Your task to perform on an android device: Open calendar and show me the third week of next month Image 0: 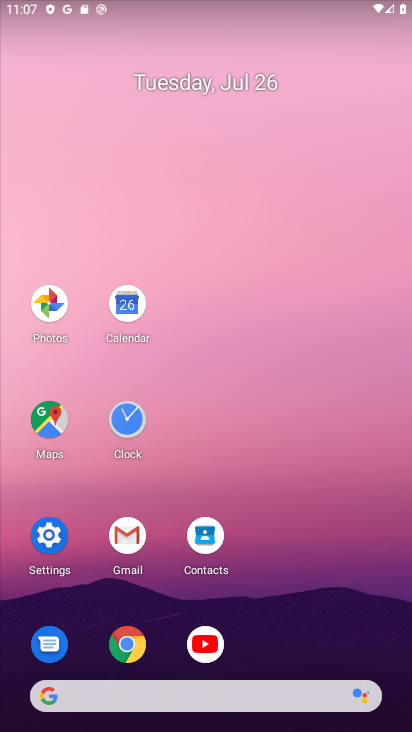
Step 0: click (128, 304)
Your task to perform on an android device: Open calendar and show me the third week of next month Image 1: 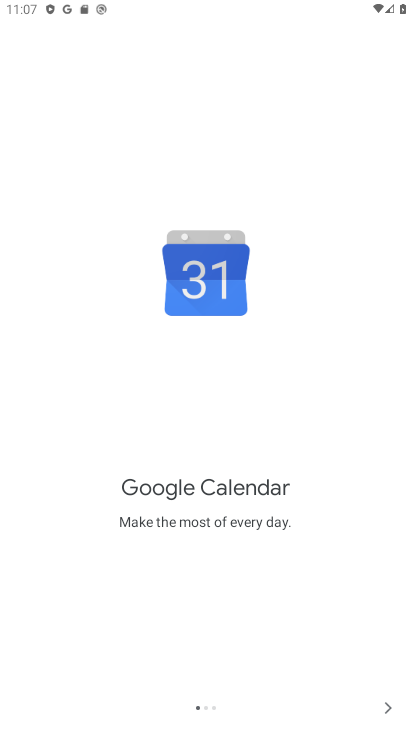
Step 1: click (387, 704)
Your task to perform on an android device: Open calendar and show me the third week of next month Image 2: 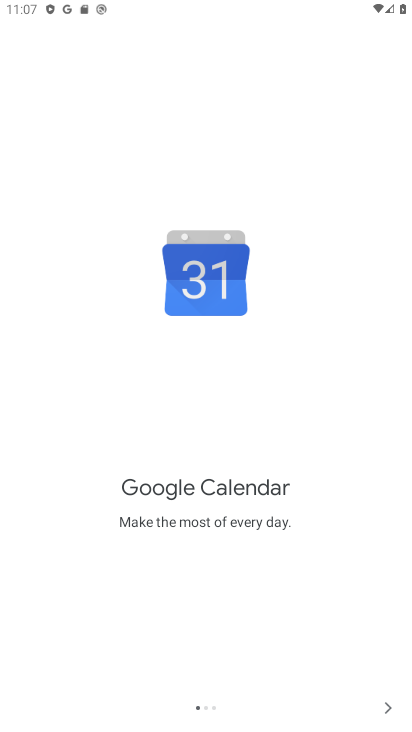
Step 2: click (387, 704)
Your task to perform on an android device: Open calendar and show me the third week of next month Image 3: 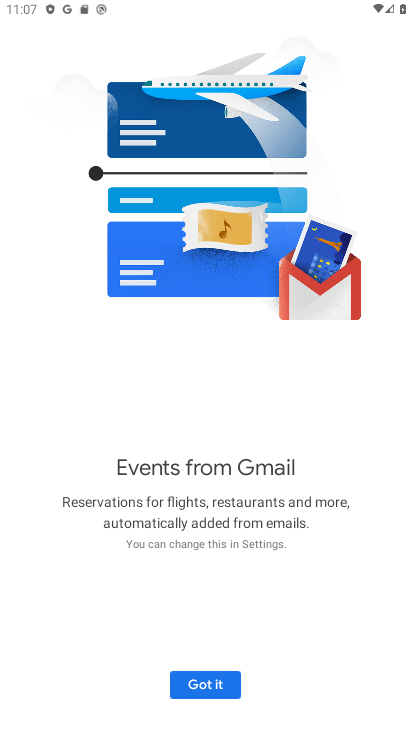
Step 3: click (387, 704)
Your task to perform on an android device: Open calendar and show me the third week of next month Image 4: 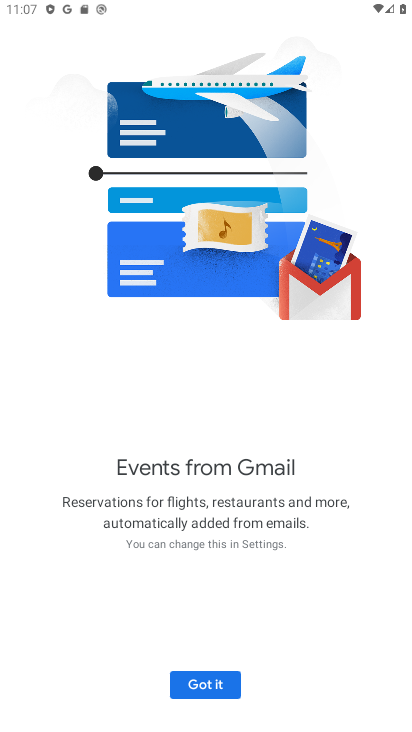
Step 4: click (184, 681)
Your task to perform on an android device: Open calendar and show me the third week of next month Image 5: 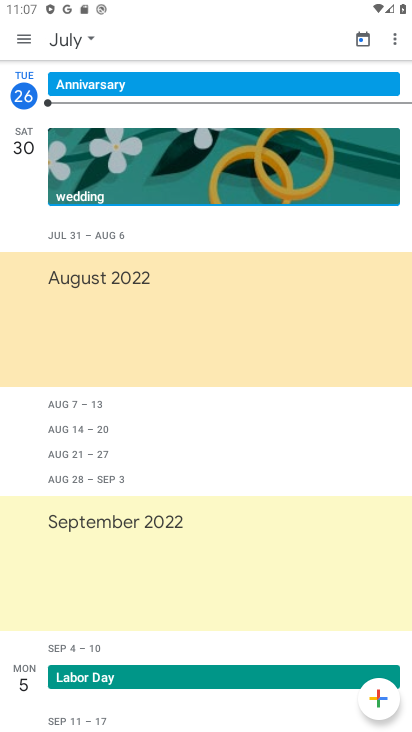
Step 5: click (23, 32)
Your task to perform on an android device: Open calendar and show me the third week of next month Image 6: 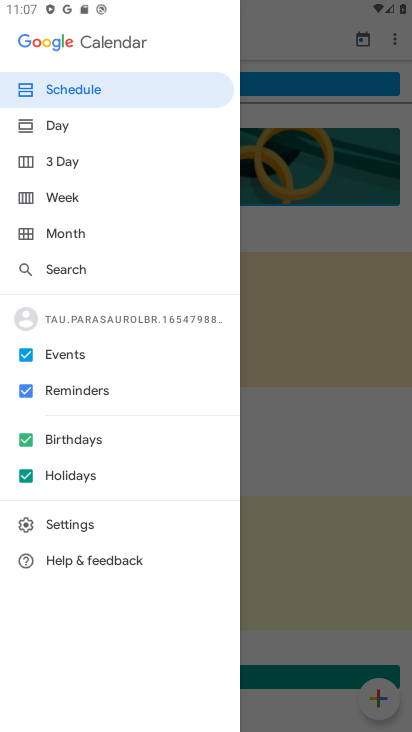
Step 6: click (57, 195)
Your task to perform on an android device: Open calendar and show me the third week of next month Image 7: 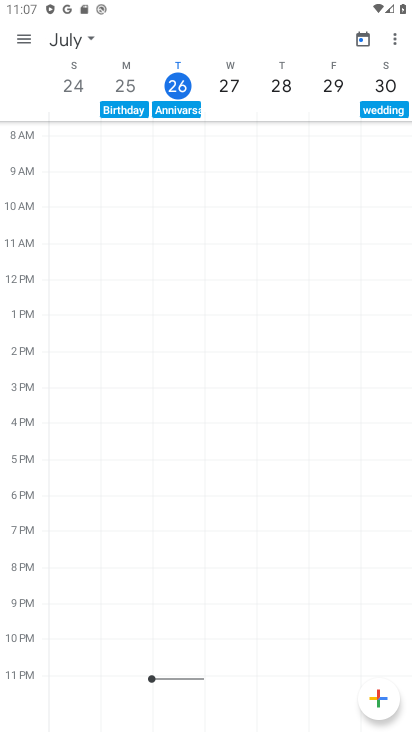
Step 7: click (87, 34)
Your task to perform on an android device: Open calendar and show me the third week of next month Image 8: 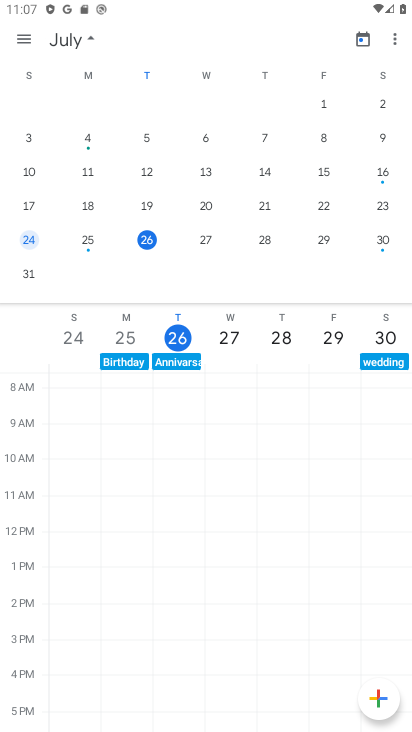
Step 8: drag from (352, 161) to (86, 127)
Your task to perform on an android device: Open calendar and show me the third week of next month Image 9: 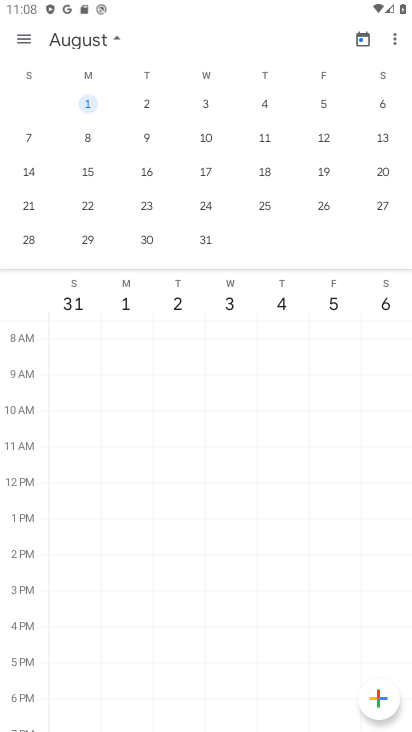
Step 9: click (83, 170)
Your task to perform on an android device: Open calendar and show me the third week of next month Image 10: 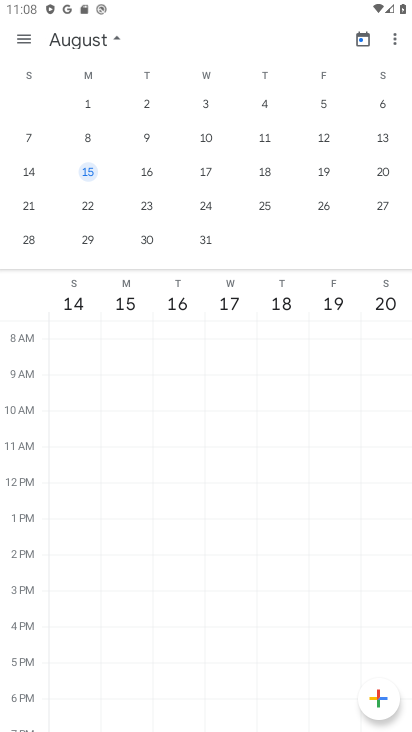
Step 10: task complete